Your task to perform on an android device: Search for Mexican restaurants on Maps Image 0: 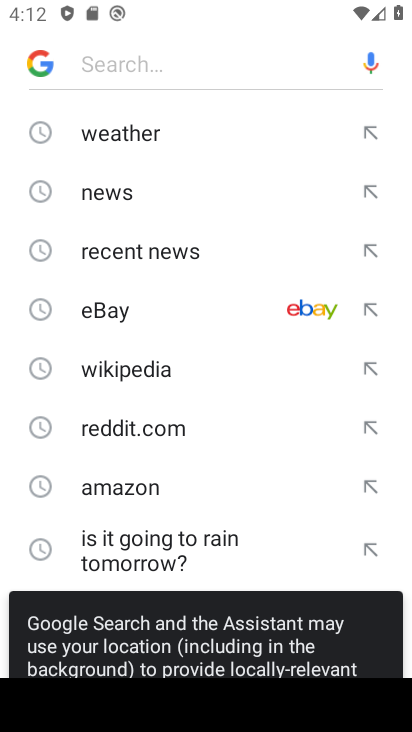
Step 0: press back button
Your task to perform on an android device: Search for Mexican restaurants on Maps Image 1: 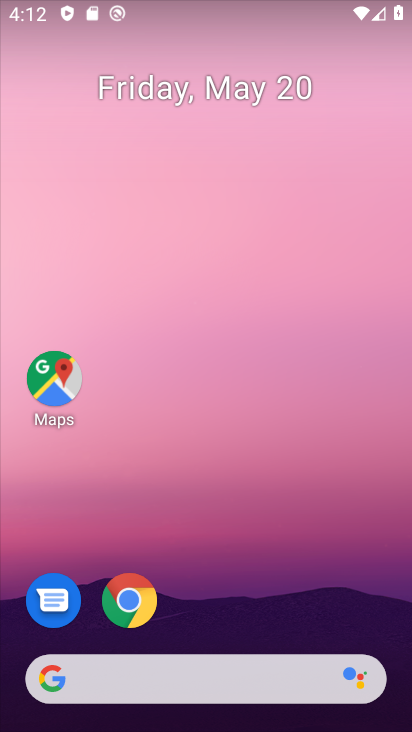
Step 1: click (54, 376)
Your task to perform on an android device: Search for Mexican restaurants on Maps Image 2: 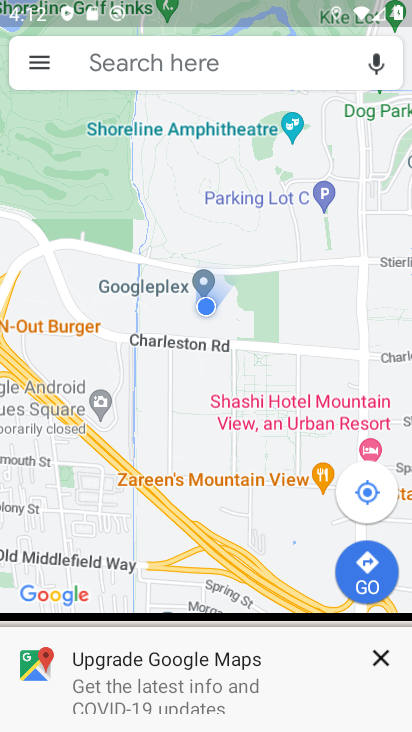
Step 2: click (237, 49)
Your task to perform on an android device: Search for Mexican restaurants on Maps Image 3: 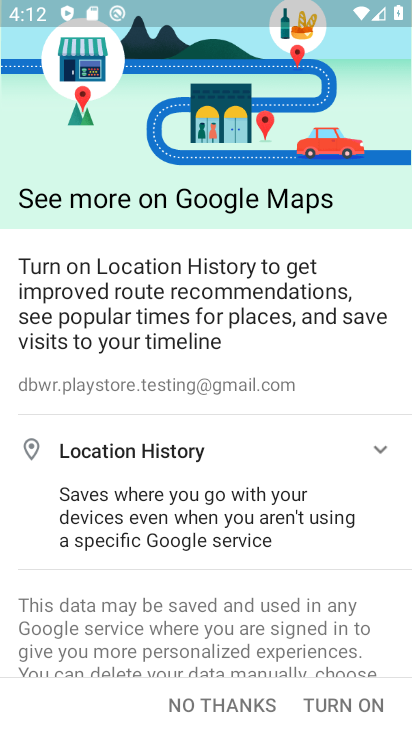
Step 3: click (357, 707)
Your task to perform on an android device: Search for Mexican restaurants on Maps Image 4: 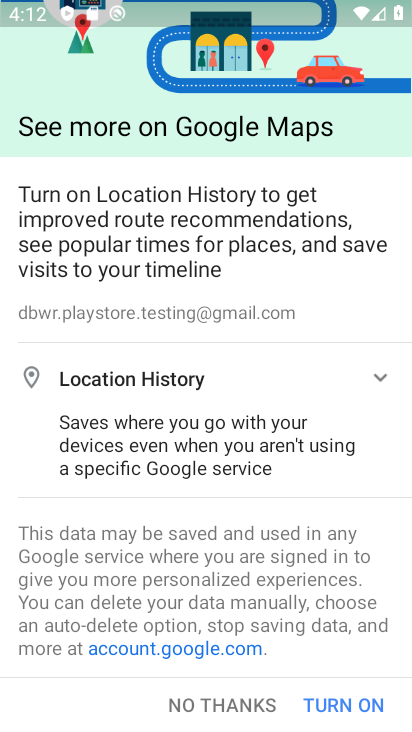
Step 4: click (357, 707)
Your task to perform on an android device: Search for Mexican restaurants on Maps Image 5: 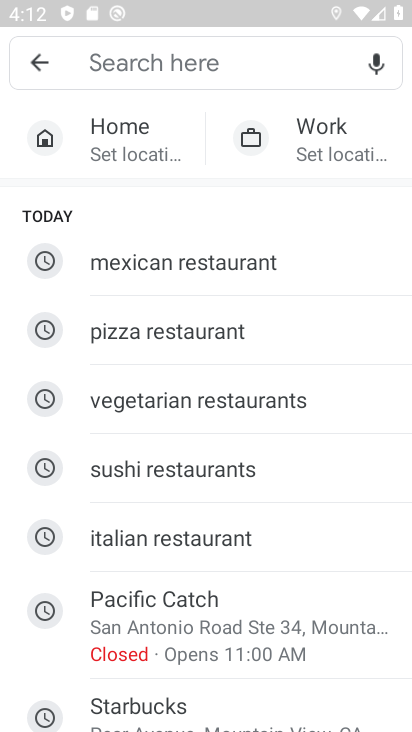
Step 5: click (246, 61)
Your task to perform on an android device: Search for Mexican restaurants on Maps Image 6: 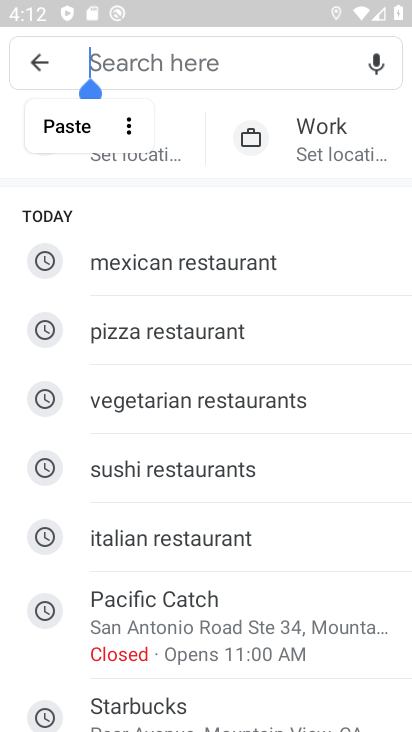
Step 6: click (216, 270)
Your task to perform on an android device: Search for Mexican restaurants on Maps Image 7: 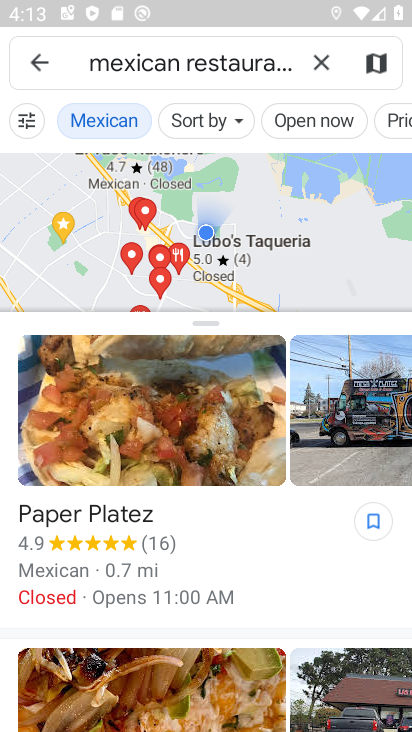
Step 7: task complete